Your task to perform on an android device: What's a goodrestaurant in Austin? Image 0: 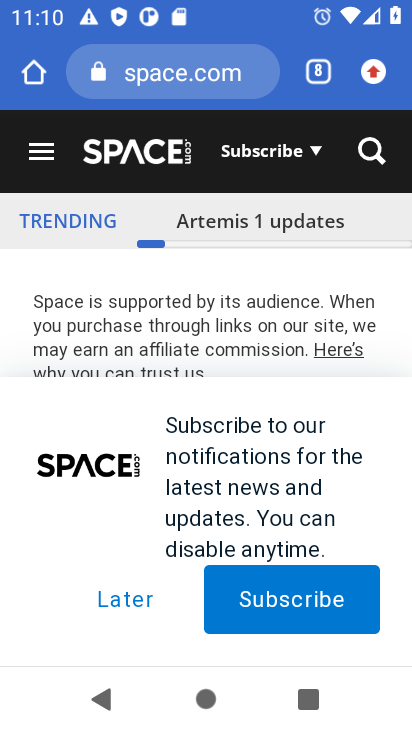
Step 0: press home button
Your task to perform on an android device: What's a goodrestaurant in Austin? Image 1: 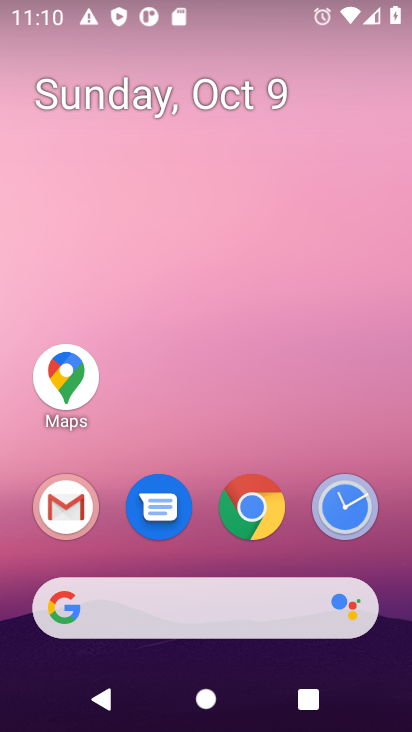
Step 1: click (229, 619)
Your task to perform on an android device: What's a goodrestaurant in Austin? Image 2: 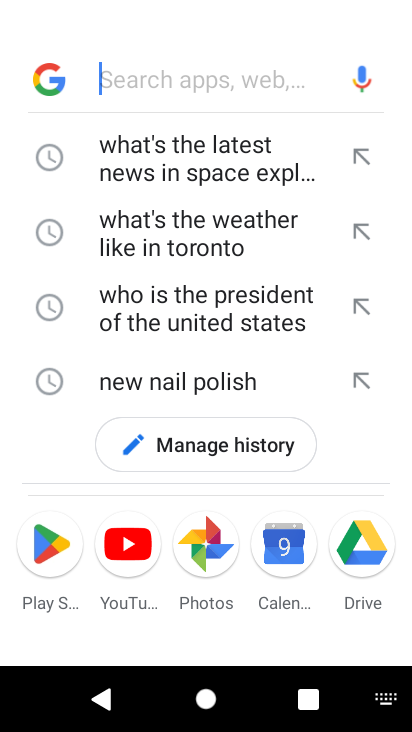
Step 2: type "What's a goodrestaurant in Austin"
Your task to perform on an android device: What's a goodrestaurant in Austin? Image 3: 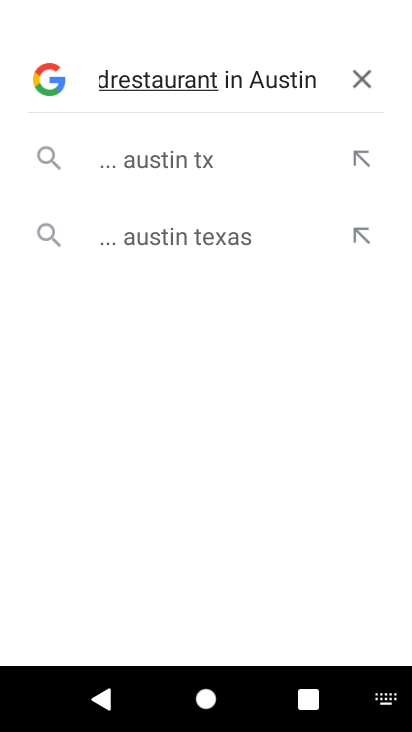
Step 3: press enter
Your task to perform on an android device: What's a goodrestaurant in Austin? Image 4: 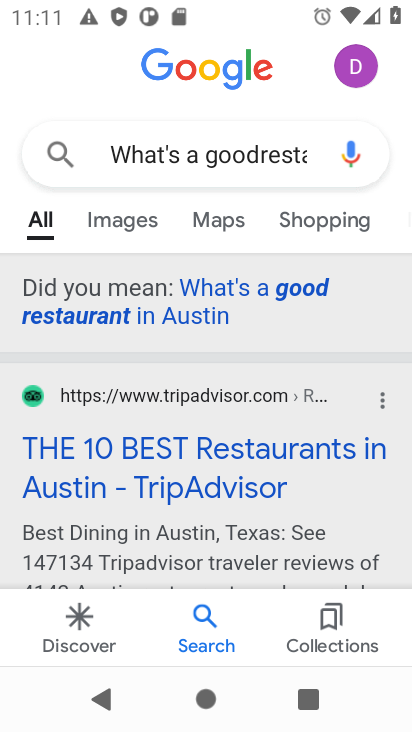
Step 4: click (290, 289)
Your task to perform on an android device: What's a goodrestaurant in Austin? Image 5: 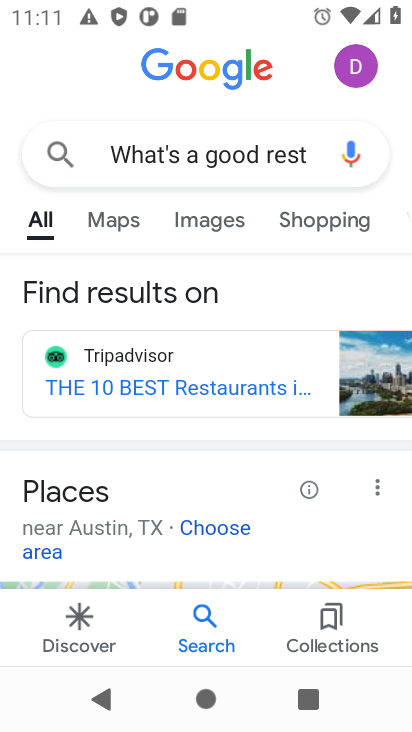
Step 5: task complete